Your task to perform on an android device: Go to eBay Image 0: 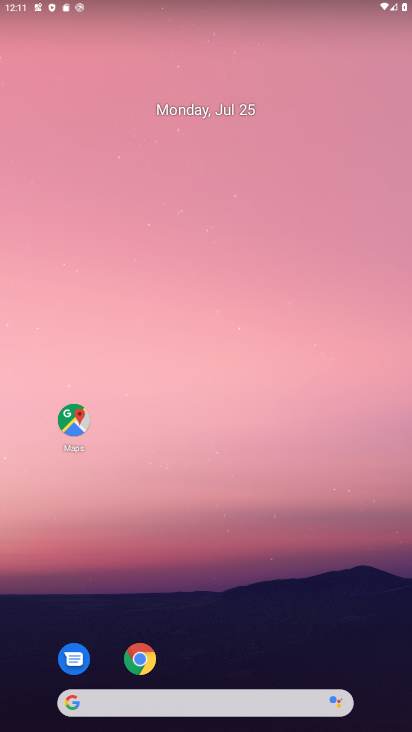
Step 0: click (94, 687)
Your task to perform on an android device: Go to eBay Image 1: 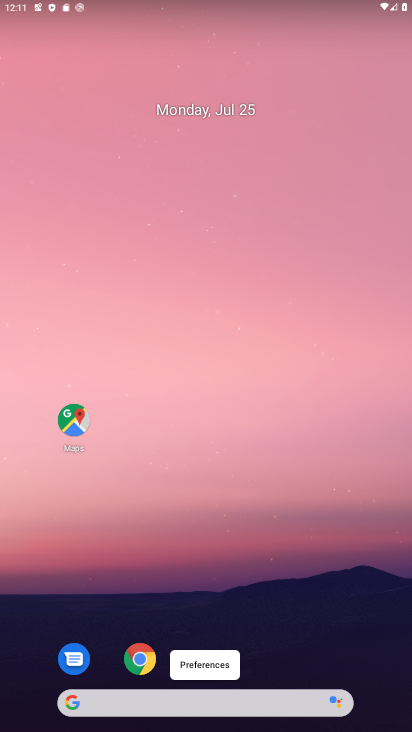
Step 1: click (122, 699)
Your task to perform on an android device: Go to eBay Image 2: 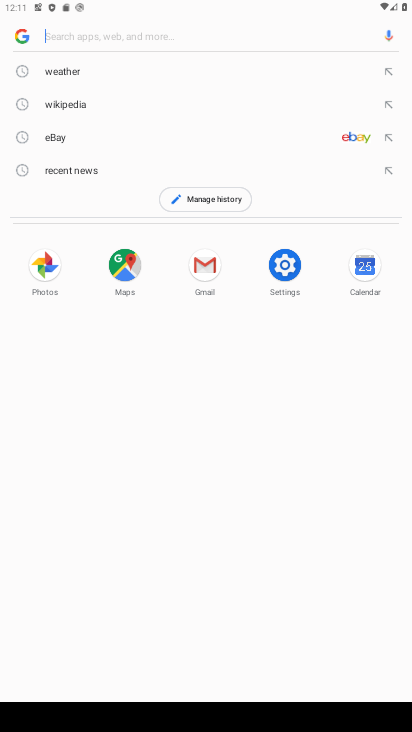
Step 2: click (54, 135)
Your task to perform on an android device: Go to eBay Image 3: 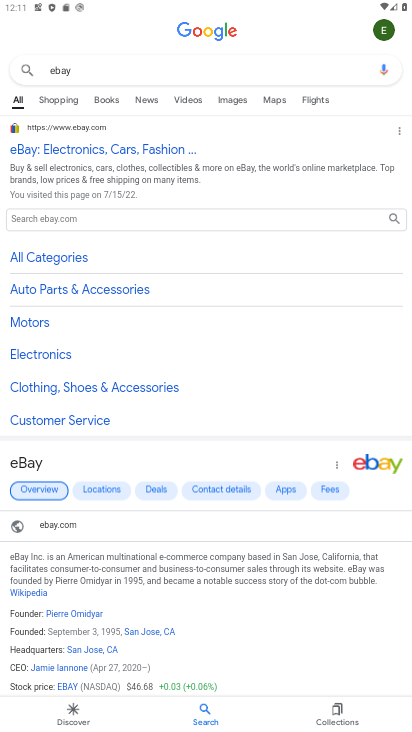
Step 3: task complete